Your task to perform on an android device: turn on improve location accuracy Image 0: 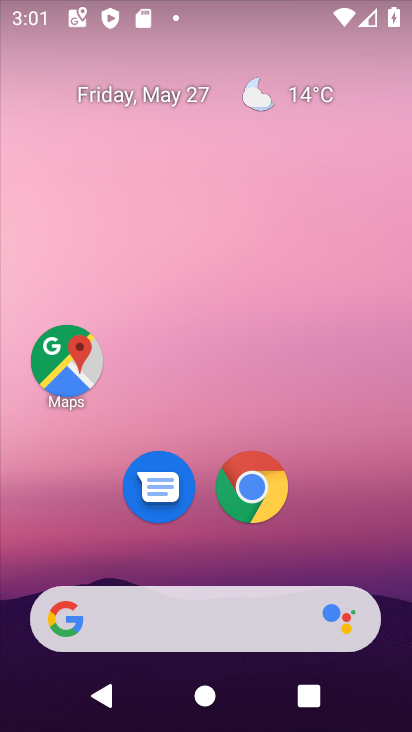
Step 0: press home button
Your task to perform on an android device: turn on improve location accuracy Image 1: 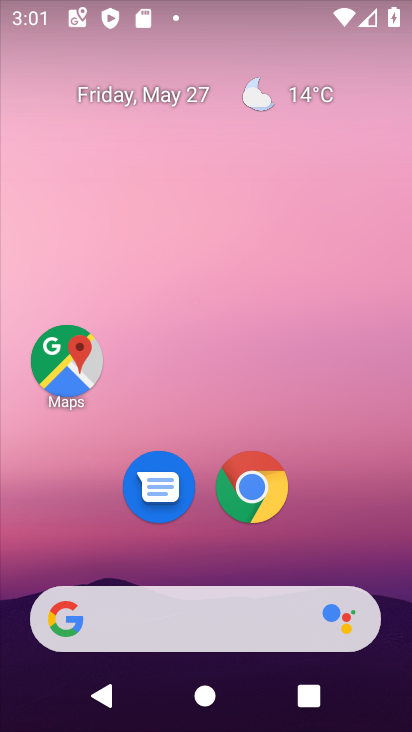
Step 1: drag from (356, 530) to (355, 117)
Your task to perform on an android device: turn on improve location accuracy Image 2: 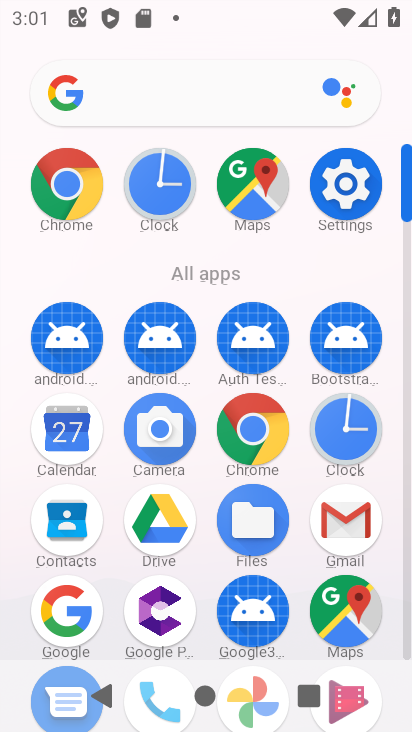
Step 2: click (355, 117)
Your task to perform on an android device: turn on improve location accuracy Image 3: 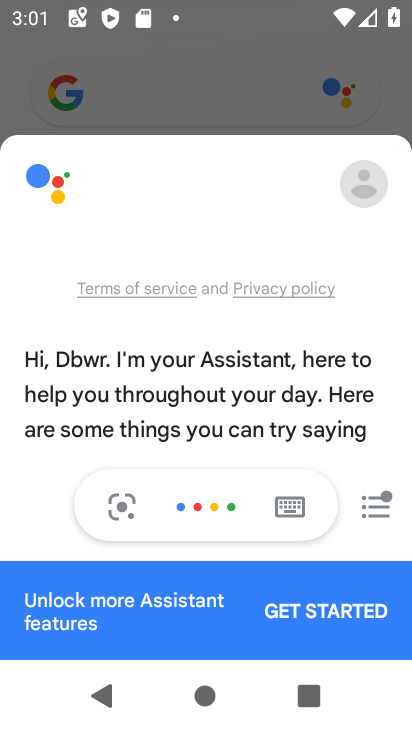
Step 3: click (136, 35)
Your task to perform on an android device: turn on improve location accuracy Image 4: 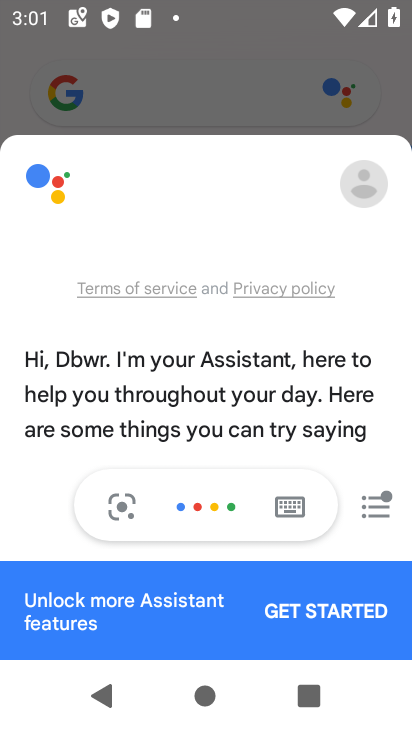
Step 4: click (188, 84)
Your task to perform on an android device: turn on improve location accuracy Image 5: 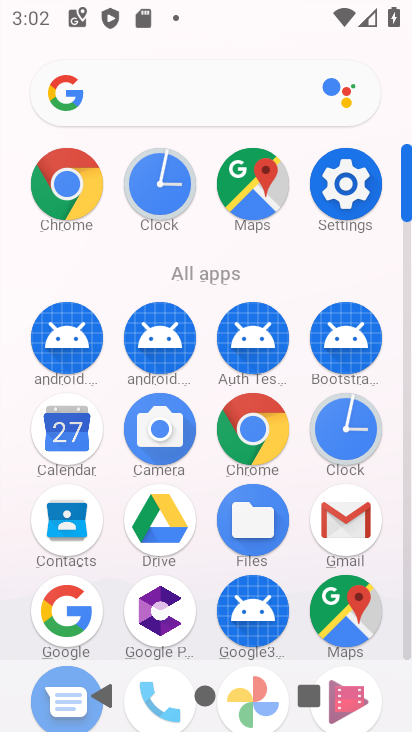
Step 5: click (339, 223)
Your task to perform on an android device: turn on improve location accuracy Image 6: 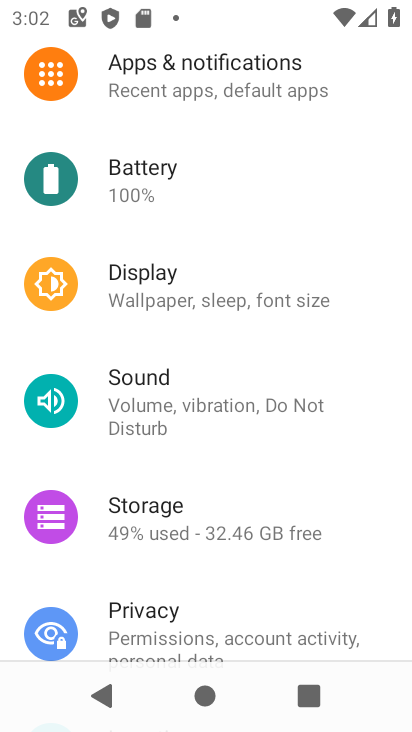
Step 6: click (293, 82)
Your task to perform on an android device: turn on improve location accuracy Image 7: 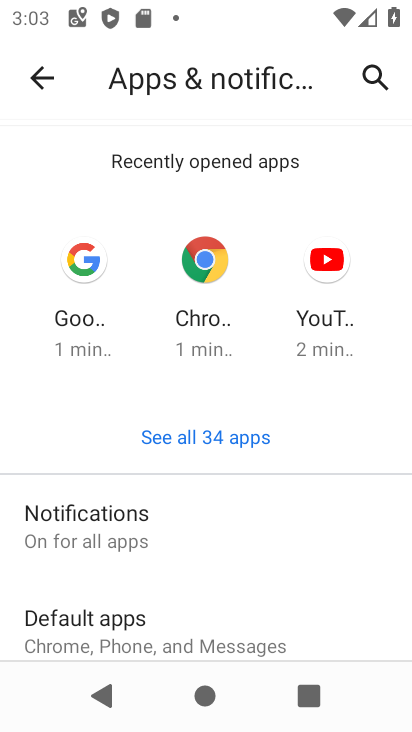
Step 7: click (29, 98)
Your task to perform on an android device: turn on improve location accuracy Image 8: 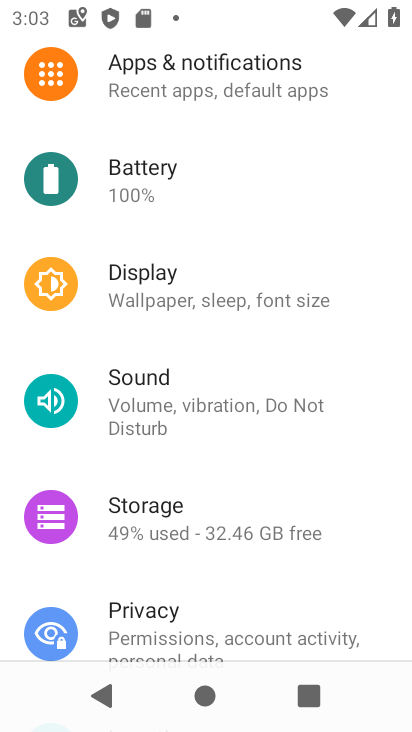
Step 8: drag from (190, 590) to (173, 9)
Your task to perform on an android device: turn on improve location accuracy Image 9: 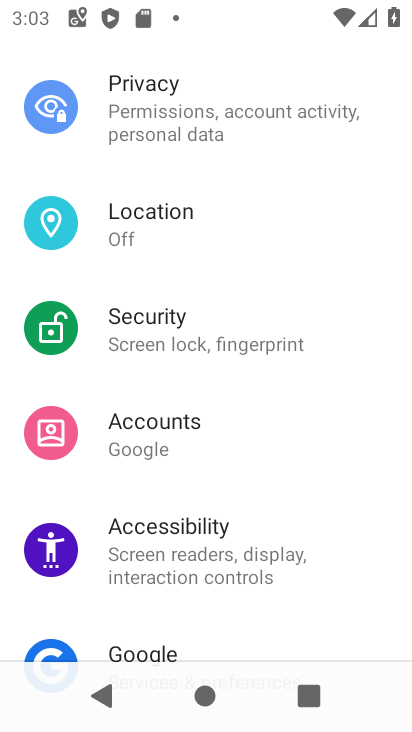
Step 9: drag from (229, 568) to (207, 17)
Your task to perform on an android device: turn on improve location accuracy Image 10: 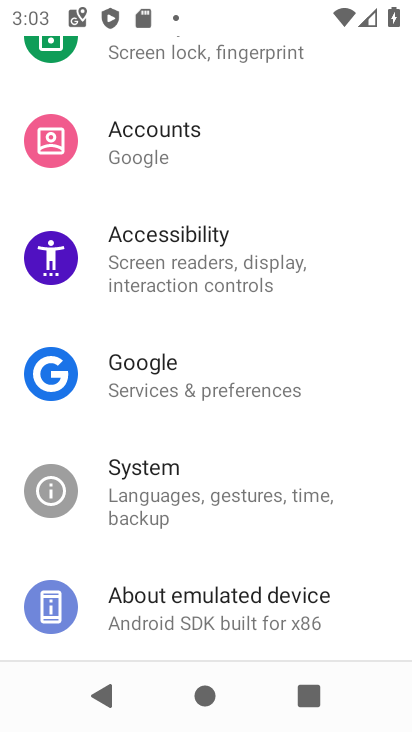
Step 10: drag from (234, 213) to (244, 581)
Your task to perform on an android device: turn on improve location accuracy Image 11: 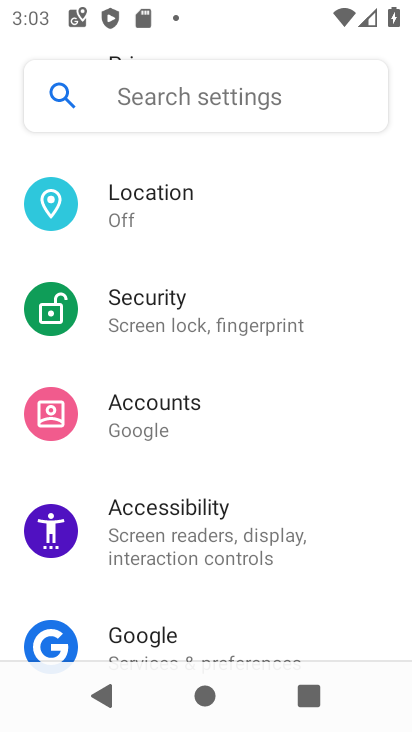
Step 11: click (177, 197)
Your task to perform on an android device: turn on improve location accuracy Image 12: 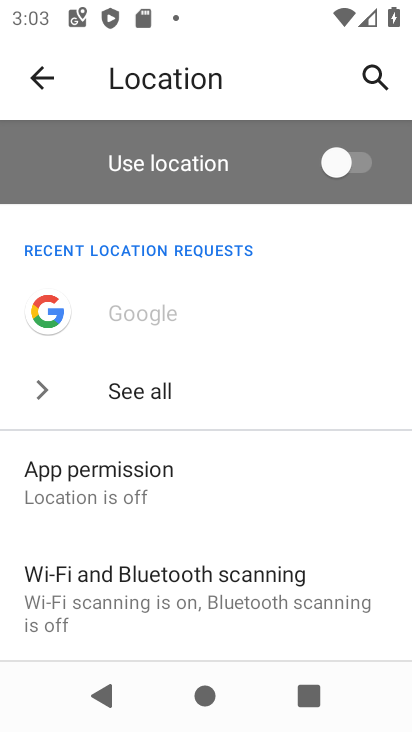
Step 12: drag from (197, 568) to (149, 330)
Your task to perform on an android device: turn on improve location accuracy Image 13: 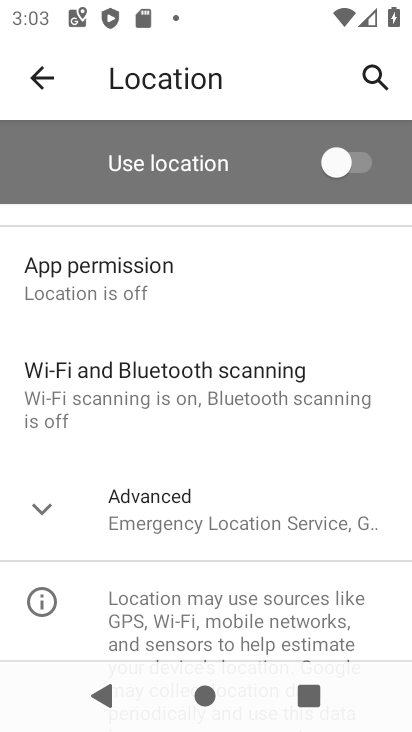
Step 13: drag from (142, 548) to (140, 269)
Your task to perform on an android device: turn on improve location accuracy Image 14: 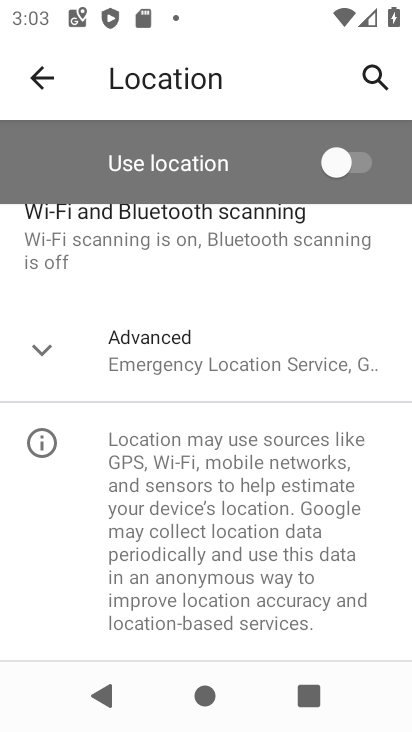
Step 14: click (139, 367)
Your task to perform on an android device: turn on improve location accuracy Image 15: 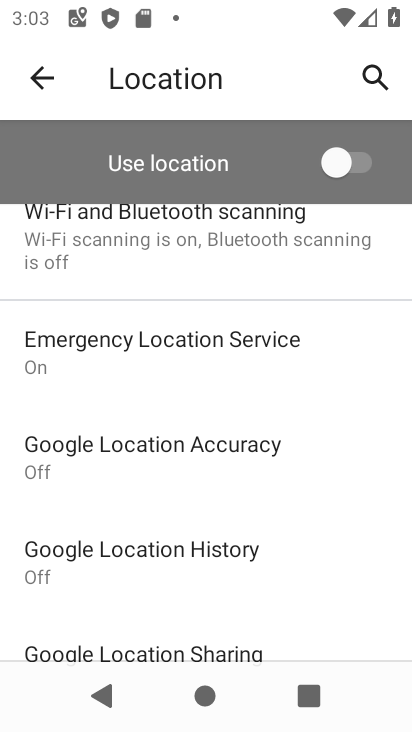
Step 15: click (122, 418)
Your task to perform on an android device: turn on improve location accuracy Image 16: 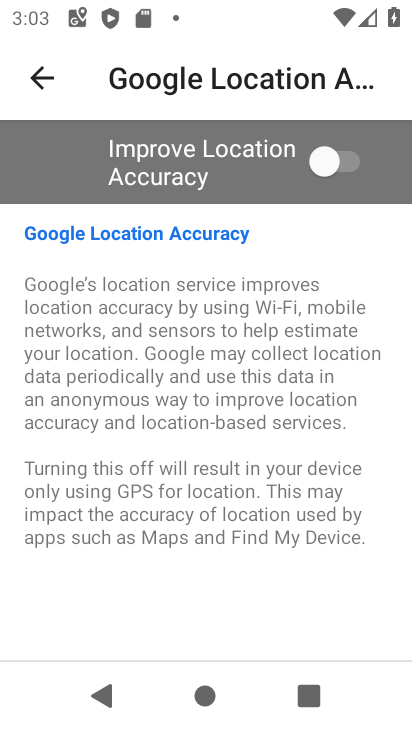
Step 16: click (175, 144)
Your task to perform on an android device: turn on improve location accuracy Image 17: 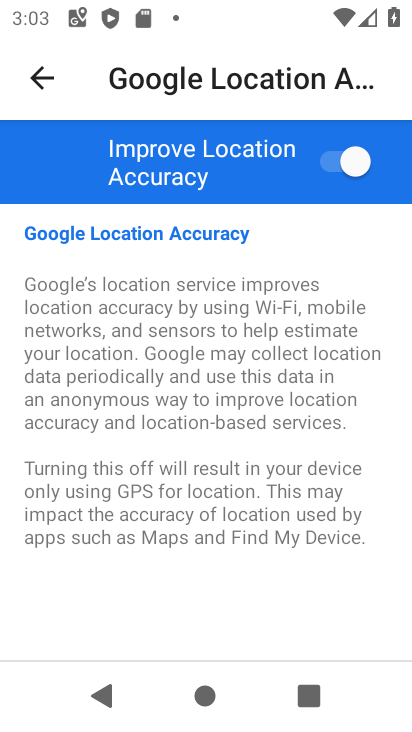
Step 17: task complete